Your task to perform on an android device: What's on my calendar tomorrow? Image 0: 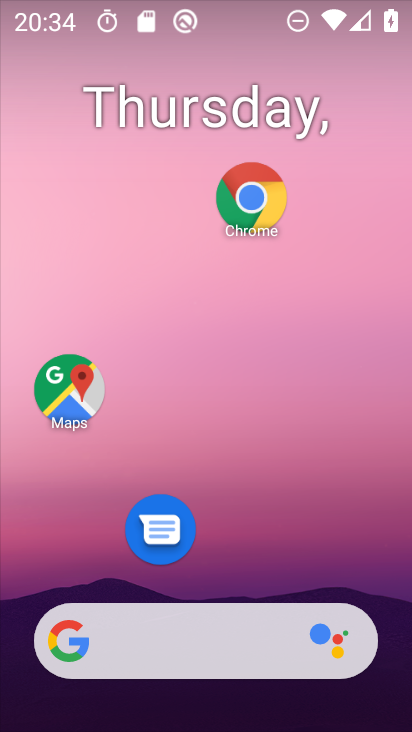
Step 0: click (201, 44)
Your task to perform on an android device: What's on my calendar tomorrow? Image 1: 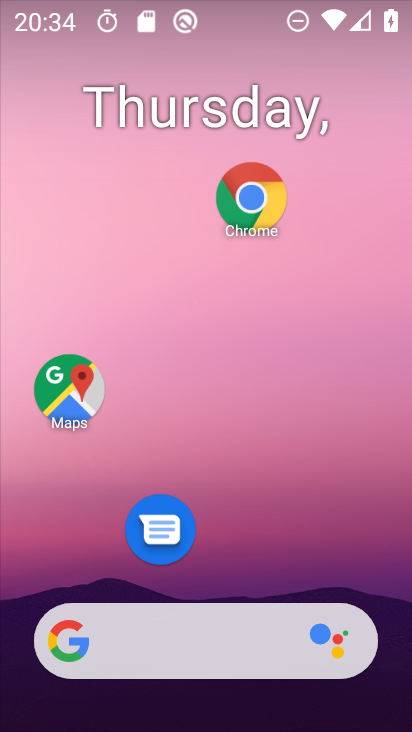
Step 1: drag from (231, 560) to (198, 112)
Your task to perform on an android device: What's on my calendar tomorrow? Image 2: 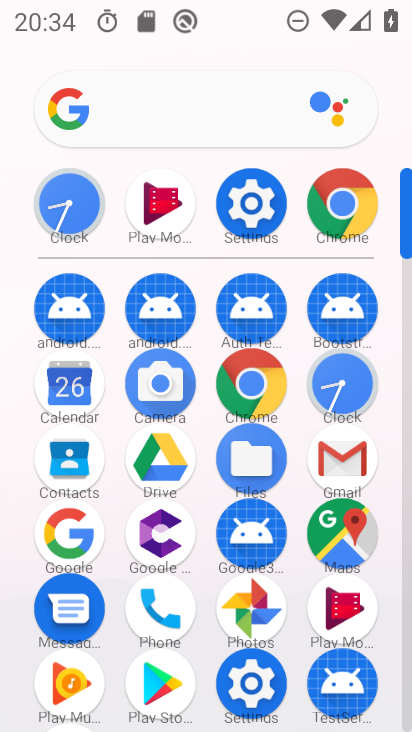
Step 2: click (62, 401)
Your task to perform on an android device: What's on my calendar tomorrow? Image 3: 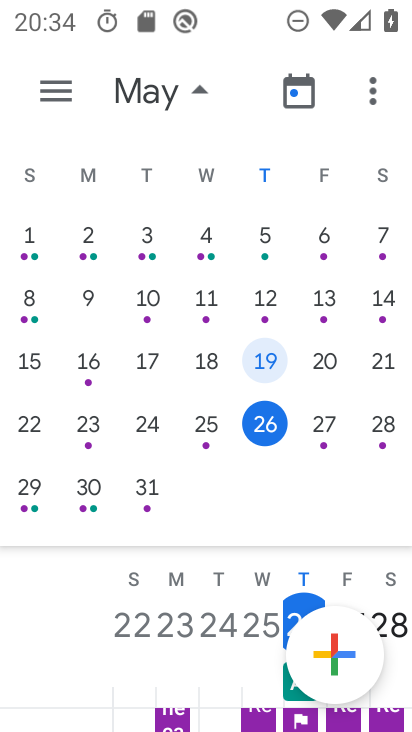
Step 3: click (61, 85)
Your task to perform on an android device: What's on my calendar tomorrow? Image 4: 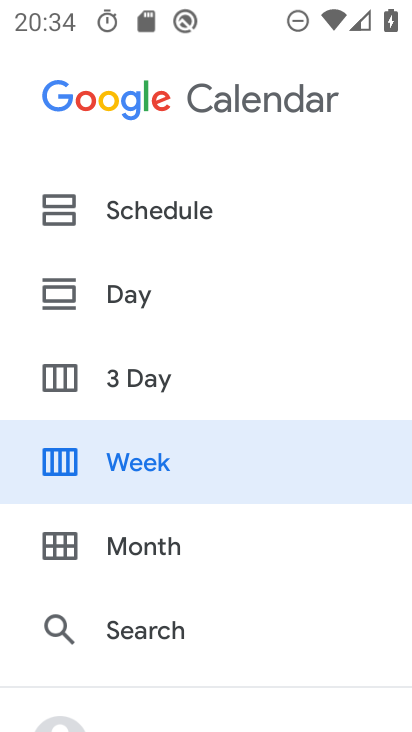
Step 4: click (73, 223)
Your task to perform on an android device: What's on my calendar tomorrow? Image 5: 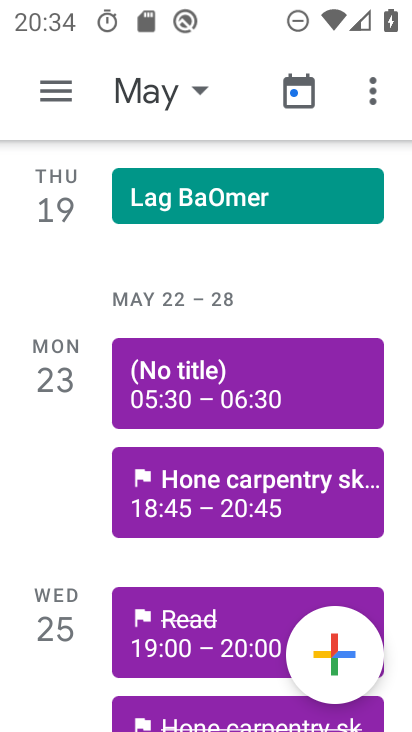
Step 5: task complete